Your task to perform on an android device: turn off airplane mode Image 0: 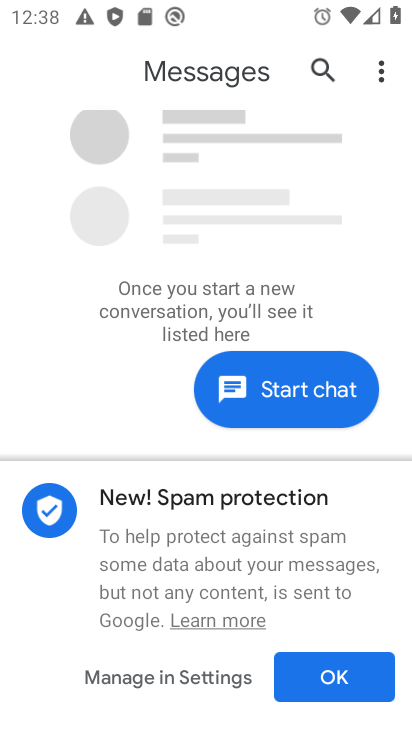
Step 0: press home button
Your task to perform on an android device: turn off airplane mode Image 1: 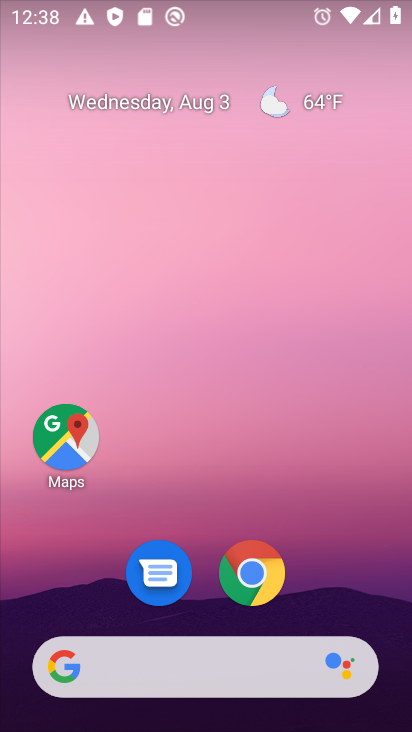
Step 1: drag from (244, 620) to (323, 92)
Your task to perform on an android device: turn off airplane mode Image 2: 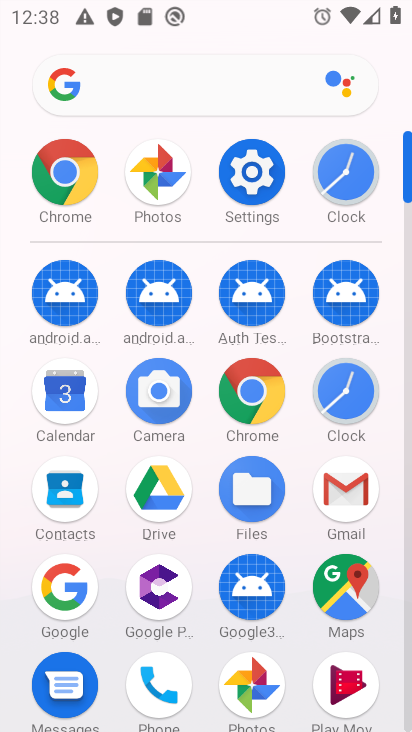
Step 2: click (254, 166)
Your task to perform on an android device: turn off airplane mode Image 3: 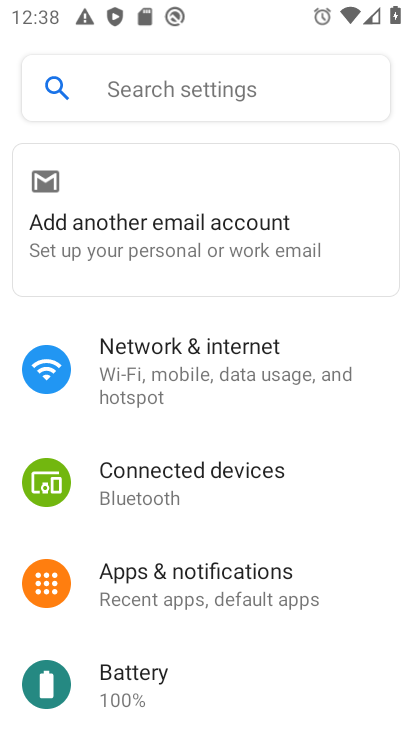
Step 3: click (184, 377)
Your task to perform on an android device: turn off airplane mode Image 4: 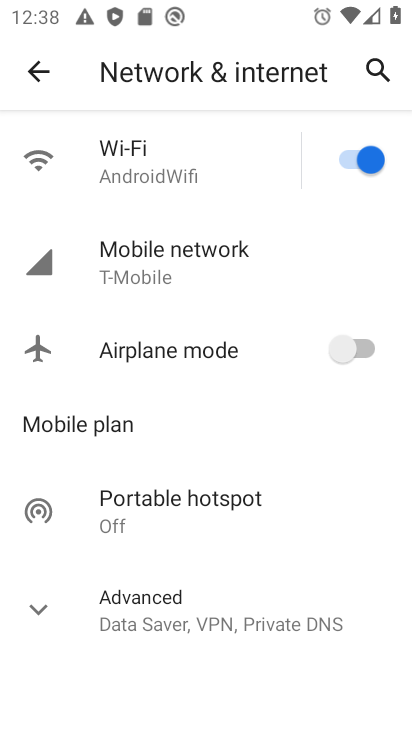
Step 4: task complete